Your task to perform on an android device: Do I have any events this weekend? Image 0: 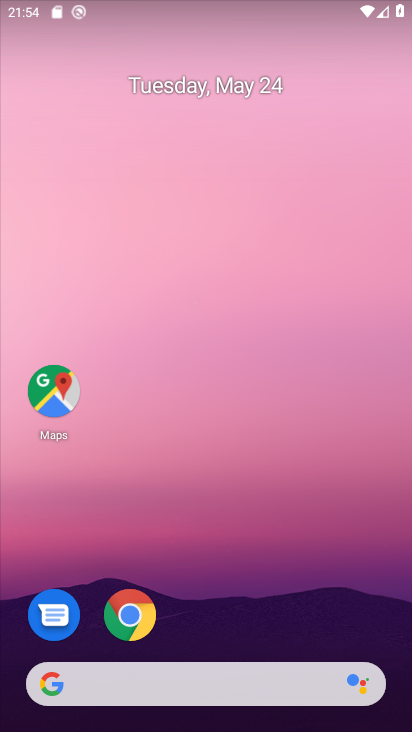
Step 0: drag from (211, 602) to (263, 288)
Your task to perform on an android device: Do I have any events this weekend? Image 1: 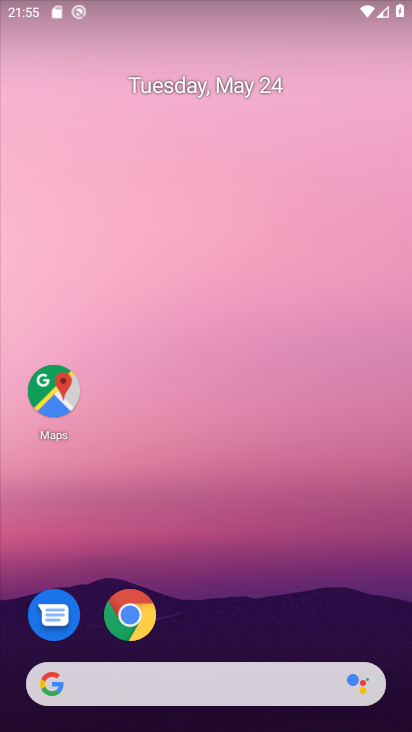
Step 1: drag from (214, 564) to (221, 372)
Your task to perform on an android device: Do I have any events this weekend? Image 2: 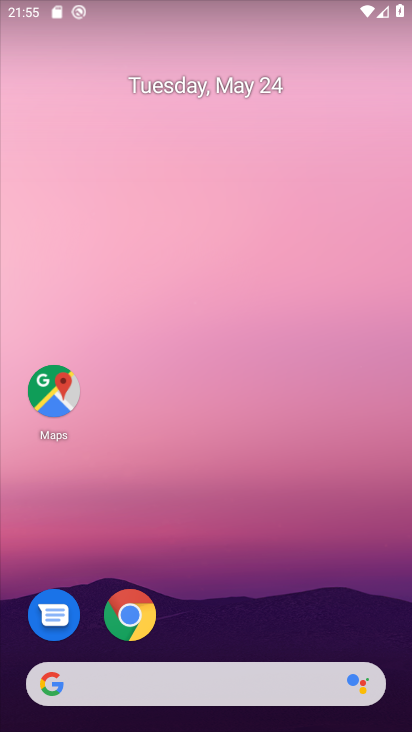
Step 2: drag from (298, 593) to (268, 156)
Your task to perform on an android device: Do I have any events this weekend? Image 3: 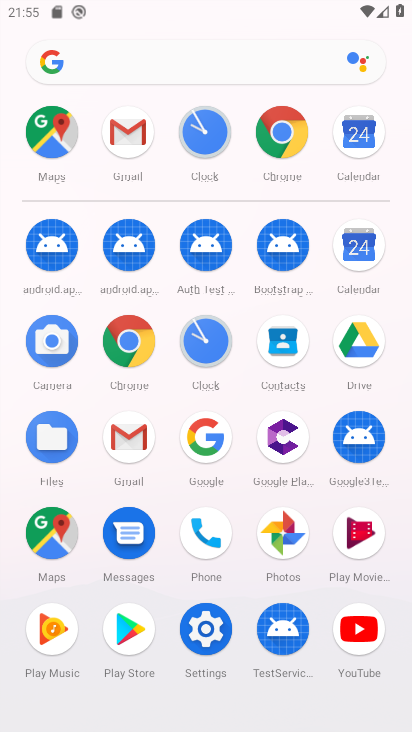
Step 3: click (351, 241)
Your task to perform on an android device: Do I have any events this weekend? Image 4: 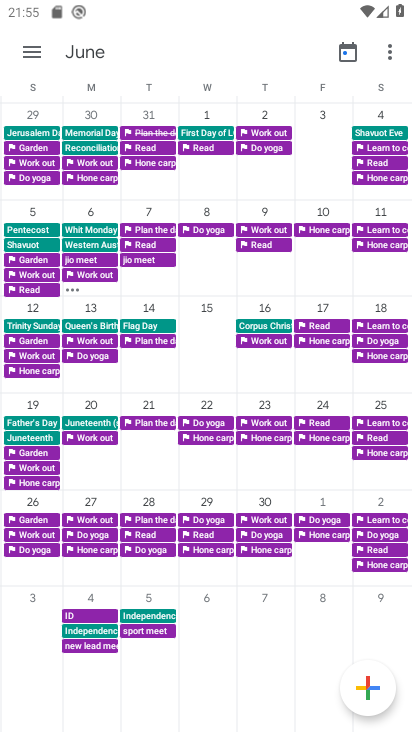
Step 4: click (31, 54)
Your task to perform on an android device: Do I have any events this weekend? Image 5: 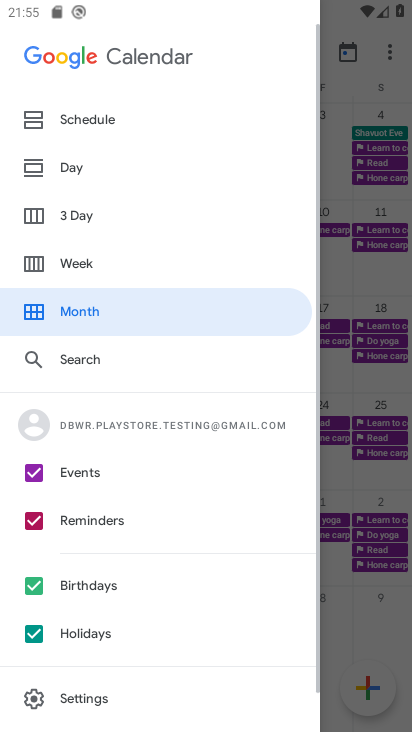
Step 5: click (66, 271)
Your task to perform on an android device: Do I have any events this weekend? Image 6: 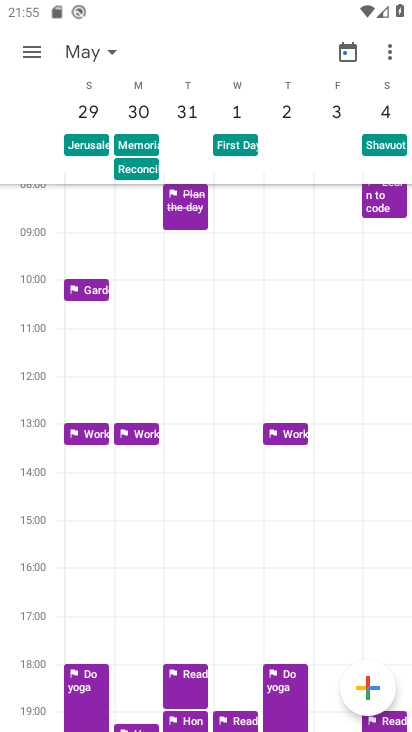
Step 6: click (371, 280)
Your task to perform on an android device: Do I have any events this weekend? Image 7: 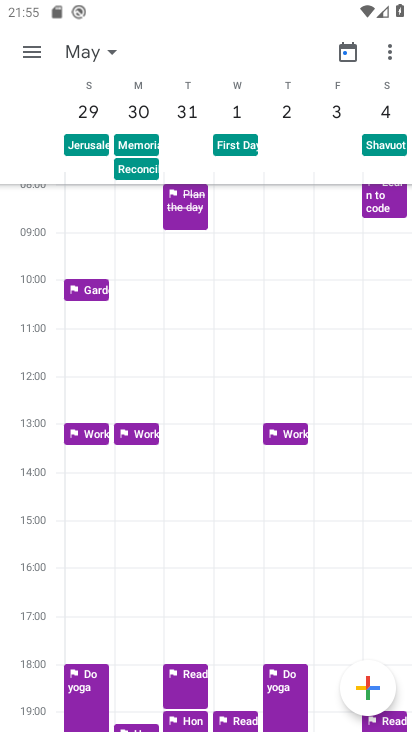
Step 7: task complete